Your task to perform on an android device: check google app version Image 0: 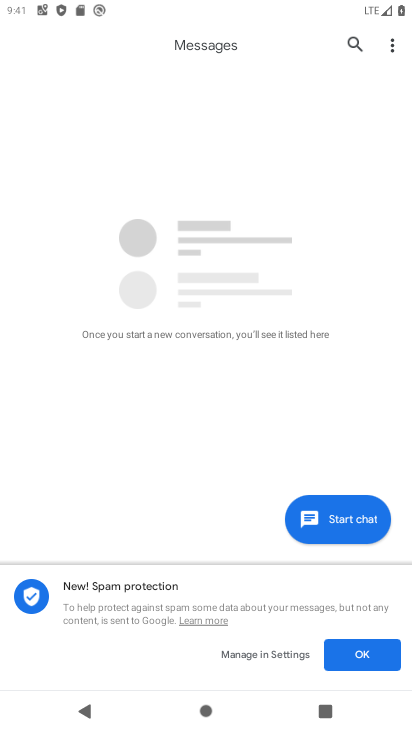
Step 0: press home button
Your task to perform on an android device: check google app version Image 1: 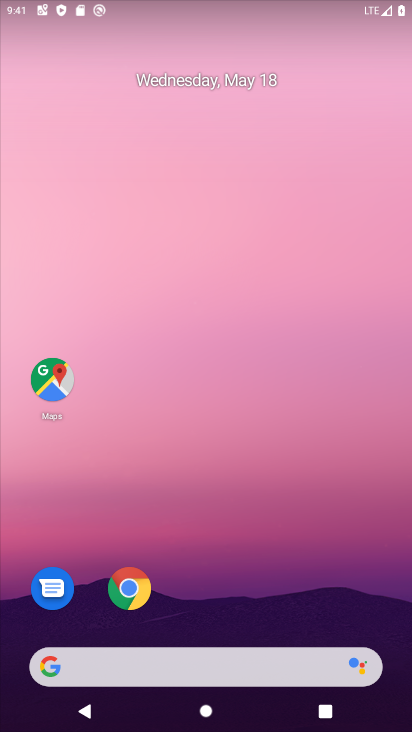
Step 1: drag from (333, 632) to (364, 16)
Your task to perform on an android device: check google app version Image 2: 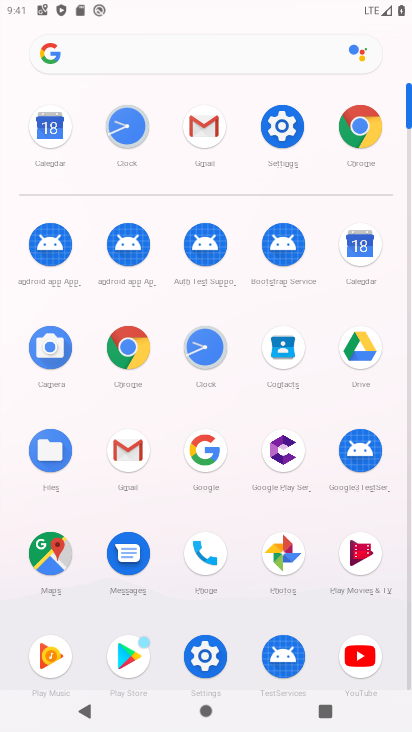
Step 2: click (205, 441)
Your task to perform on an android device: check google app version Image 3: 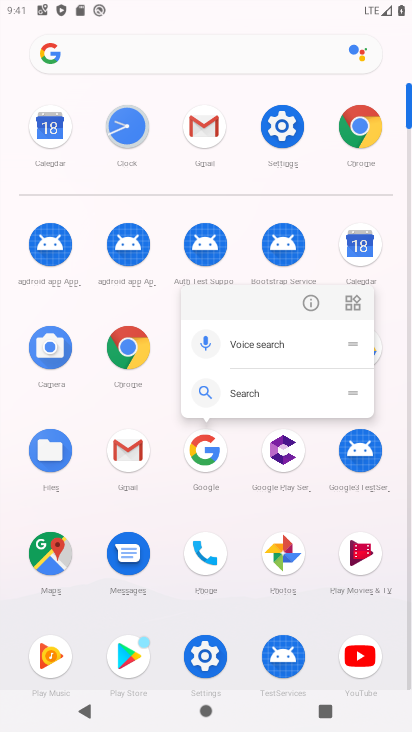
Step 3: click (311, 304)
Your task to perform on an android device: check google app version Image 4: 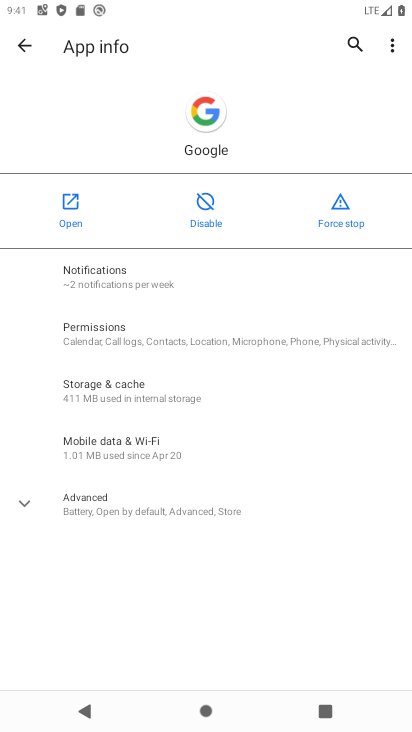
Step 4: click (23, 502)
Your task to perform on an android device: check google app version Image 5: 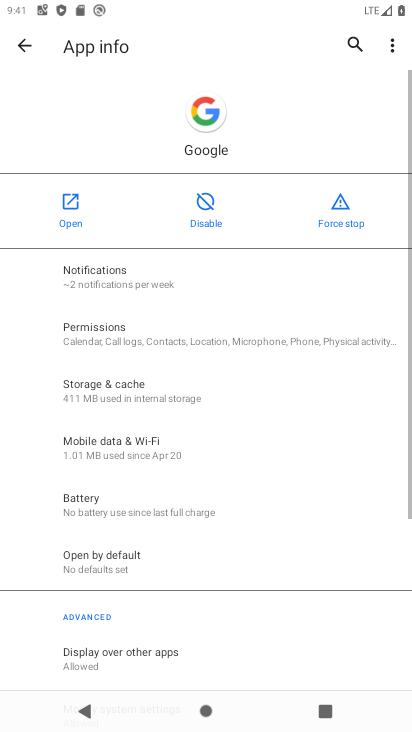
Step 5: drag from (122, 524) to (166, 213)
Your task to perform on an android device: check google app version Image 6: 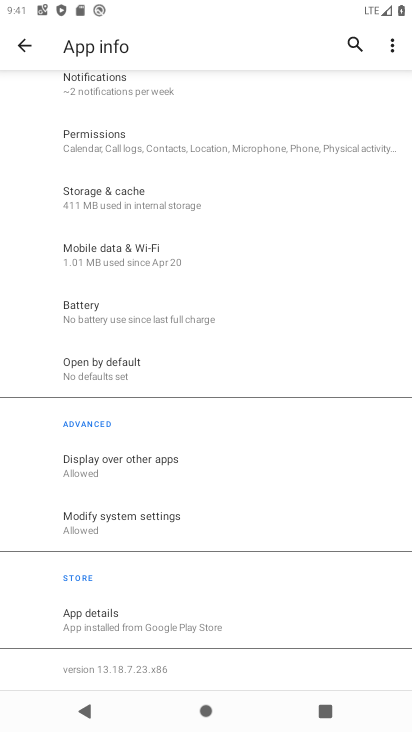
Step 6: drag from (109, 529) to (165, 177)
Your task to perform on an android device: check google app version Image 7: 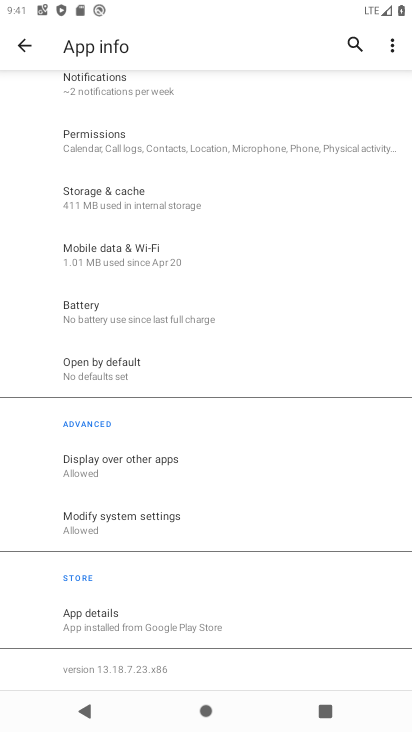
Step 7: click (116, 674)
Your task to perform on an android device: check google app version Image 8: 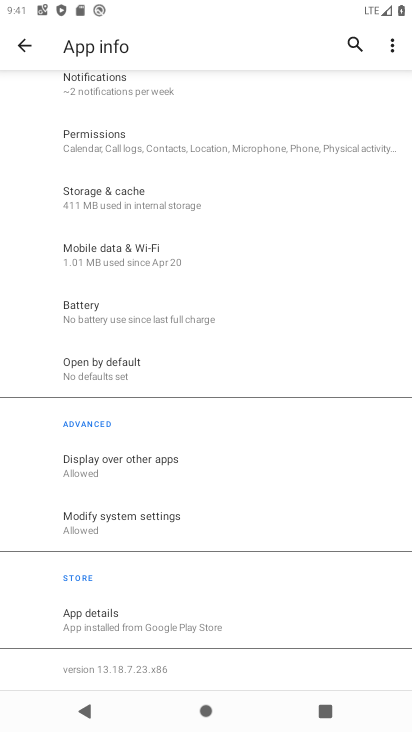
Step 8: task complete